Your task to perform on an android device: all mails in gmail Image 0: 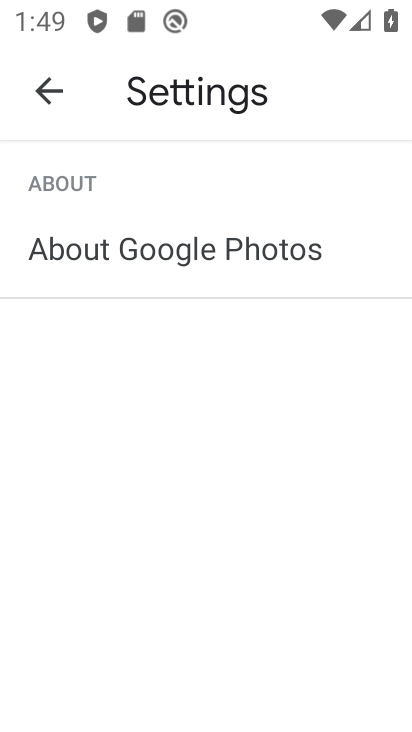
Step 0: press home button
Your task to perform on an android device: all mails in gmail Image 1: 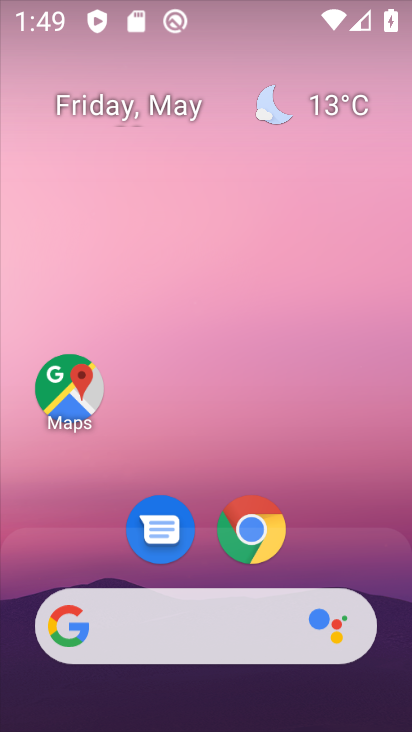
Step 1: drag from (397, 563) to (321, 97)
Your task to perform on an android device: all mails in gmail Image 2: 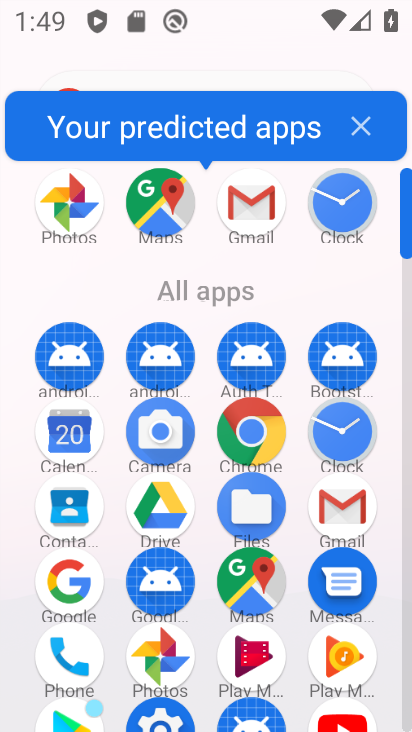
Step 2: click (353, 513)
Your task to perform on an android device: all mails in gmail Image 3: 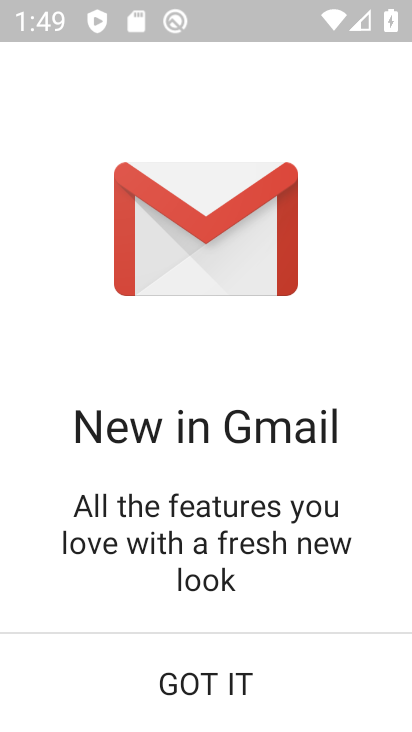
Step 3: click (233, 683)
Your task to perform on an android device: all mails in gmail Image 4: 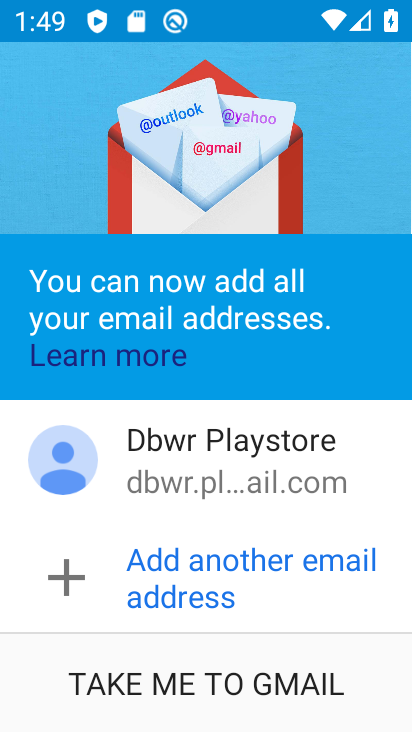
Step 4: click (243, 700)
Your task to perform on an android device: all mails in gmail Image 5: 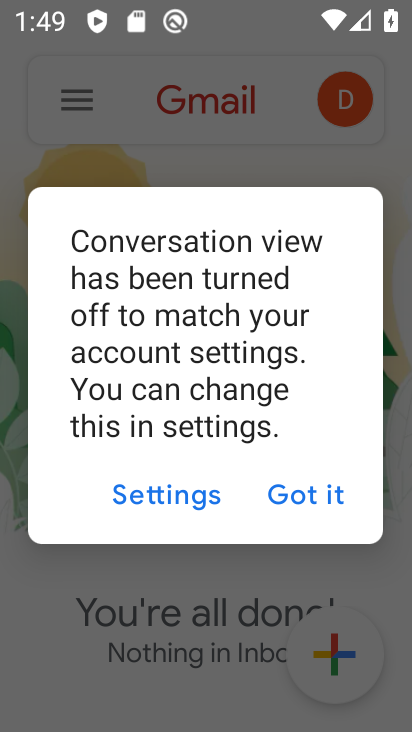
Step 5: click (336, 487)
Your task to perform on an android device: all mails in gmail Image 6: 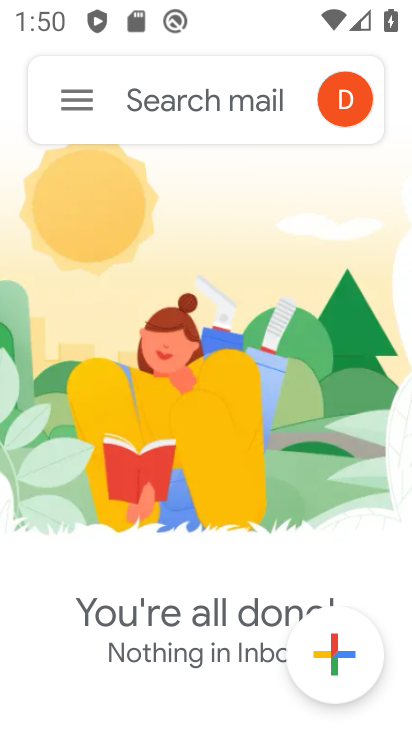
Step 6: click (87, 109)
Your task to perform on an android device: all mails in gmail Image 7: 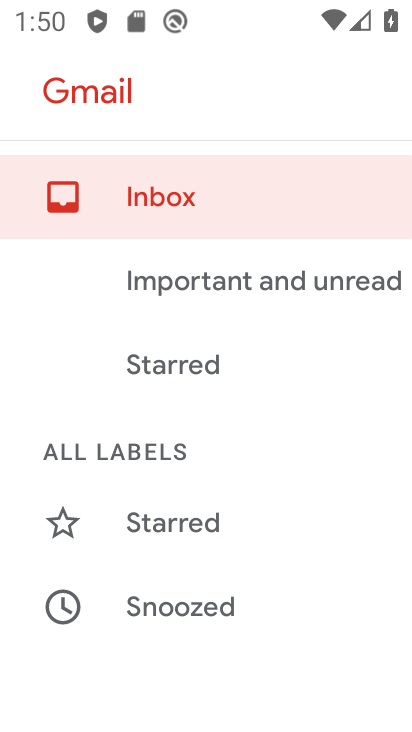
Step 7: drag from (247, 569) to (280, 225)
Your task to perform on an android device: all mails in gmail Image 8: 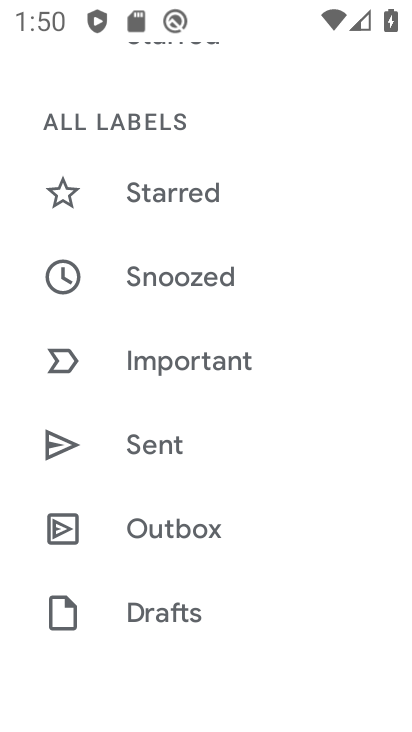
Step 8: drag from (252, 614) to (265, 263)
Your task to perform on an android device: all mails in gmail Image 9: 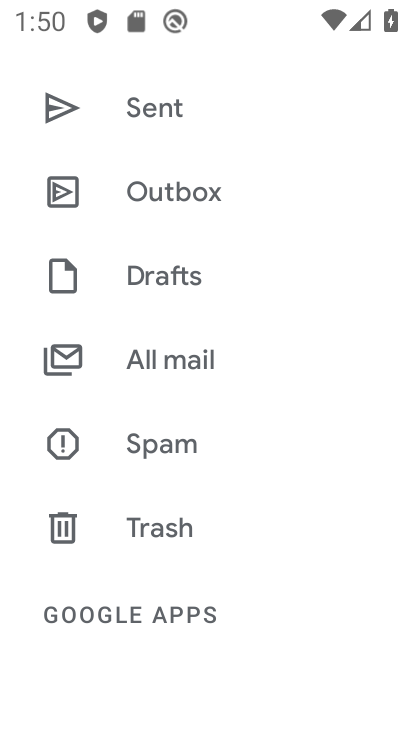
Step 9: click (177, 361)
Your task to perform on an android device: all mails in gmail Image 10: 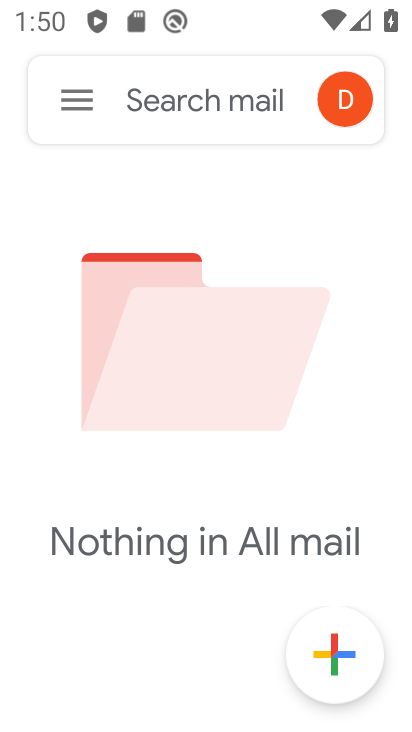
Step 10: task complete